Your task to perform on an android device: View the shopping cart on walmart.com. Add "panasonic triple a" to the cart on walmart.com Image 0: 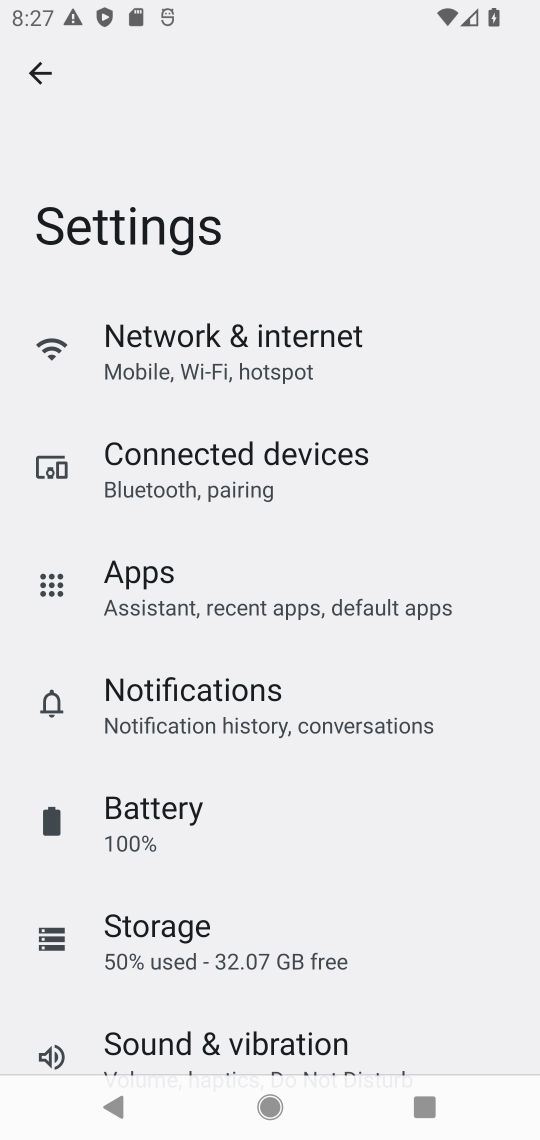
Step 0: press home button
Your task to perform on an android device: View the shopping cart on walmart.com. Add "panasonic triple a" to the cart on walmart.com Image 1: 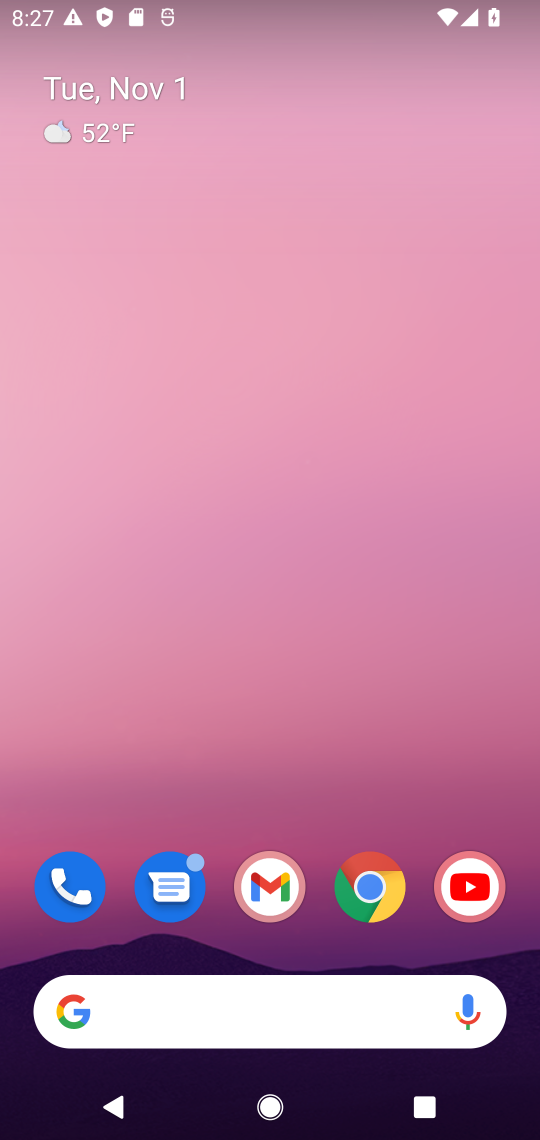
Step 1: drag from (224, 1015) to (245, 241)
Your task to perform on an android device: View the shopping cart on walmart.com. Add "panasonic triple a" to the cart on walmart.com Image 2: 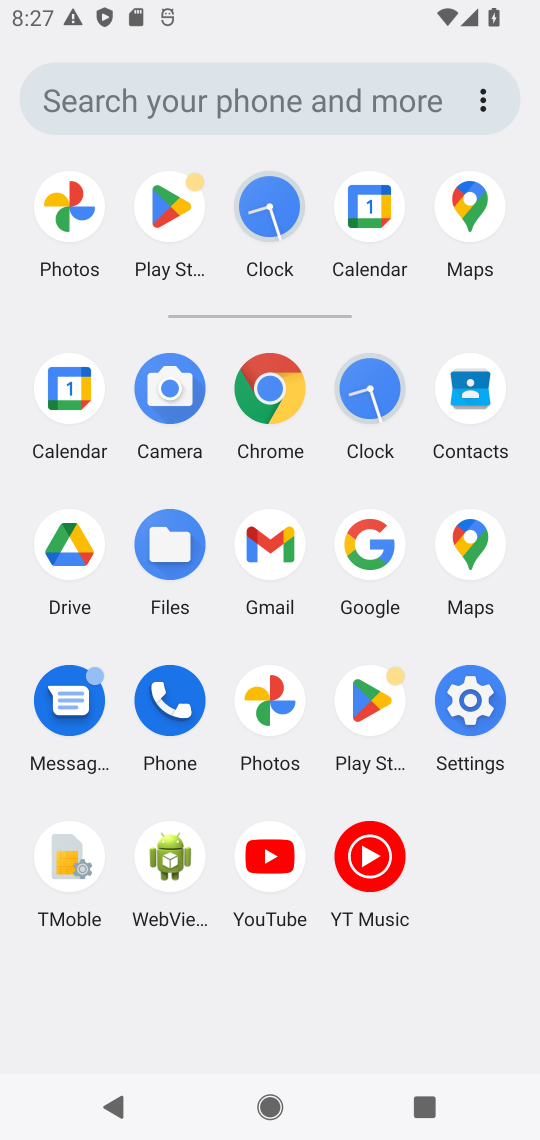
Step 2: click (375, 548)
Your task to perform on an android device: View the shopping cart on walmart.com. Add "panasonic triple a" to the cart on walmart.com Image 3: 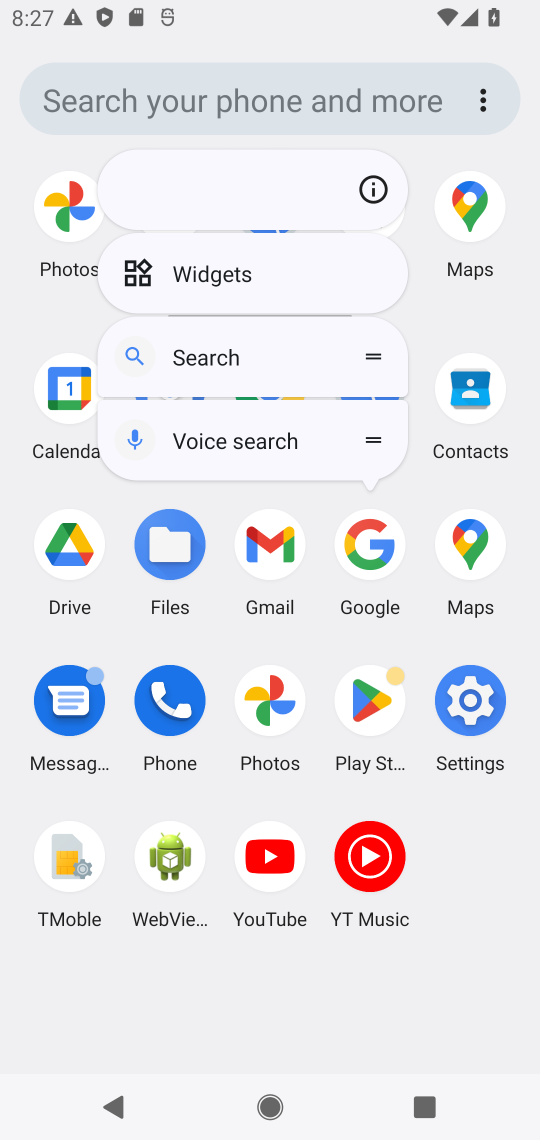
Step 3: click (360, 533)
Your task to perform on an android device: View the shopping cart on walmart.com. Add "panasonic triple a" to the cart on walmart.com Image 4: 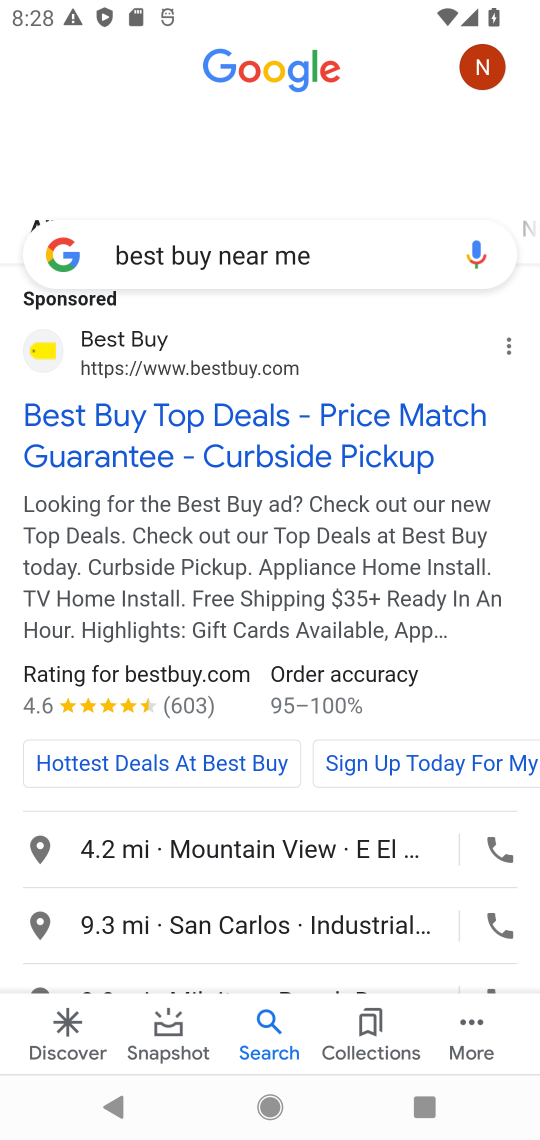
Step 4: click (316, 263)
Your task to perform on an android device: View the shopping cart on walmart.com. Add "panasonic triple a" to the cart on walmart.com Image 5: 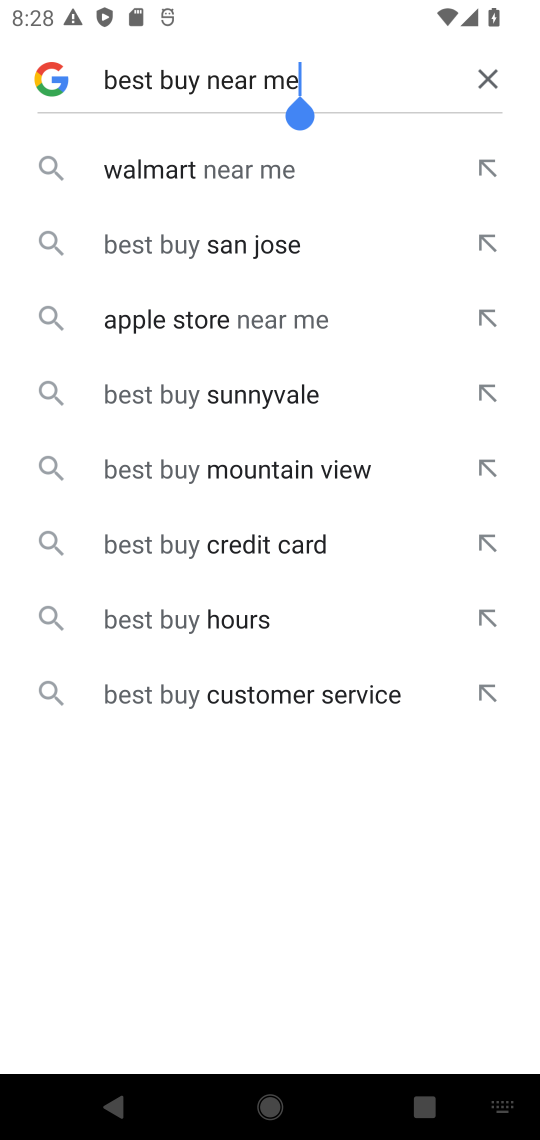
Step 5: click (495, 78)
Your task to perform on an android device: View the shopping cart on walmart.com. Add "panasonic triple a" to the cart on walmart.com Image 6: 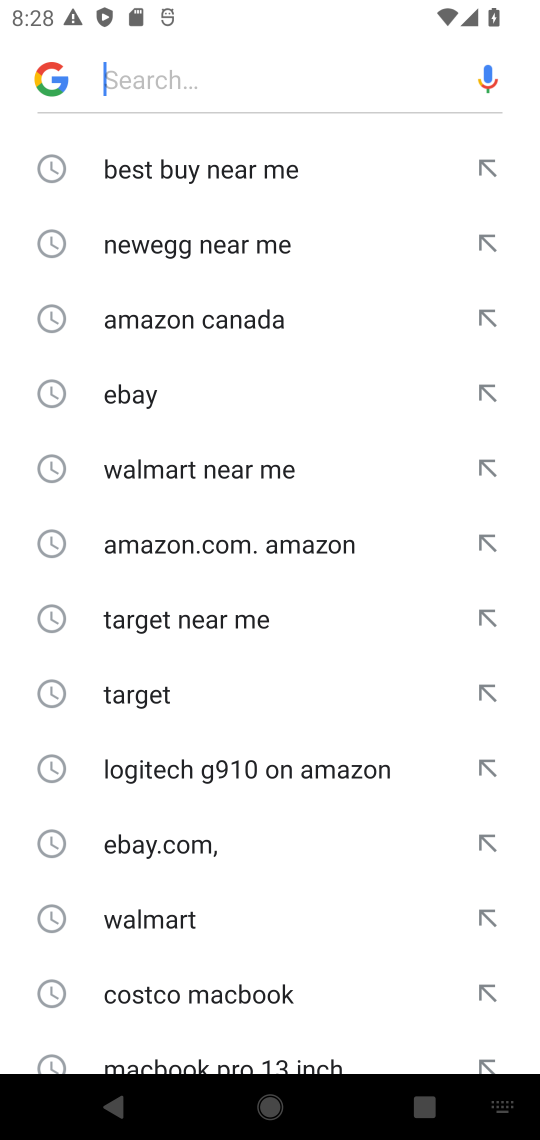
Step 6: click (122, 61)
Your task to perform on an android device: View the shopping cart on walmart.com. Add "panasonic triple a" to the cart on walmart.com Image 7: 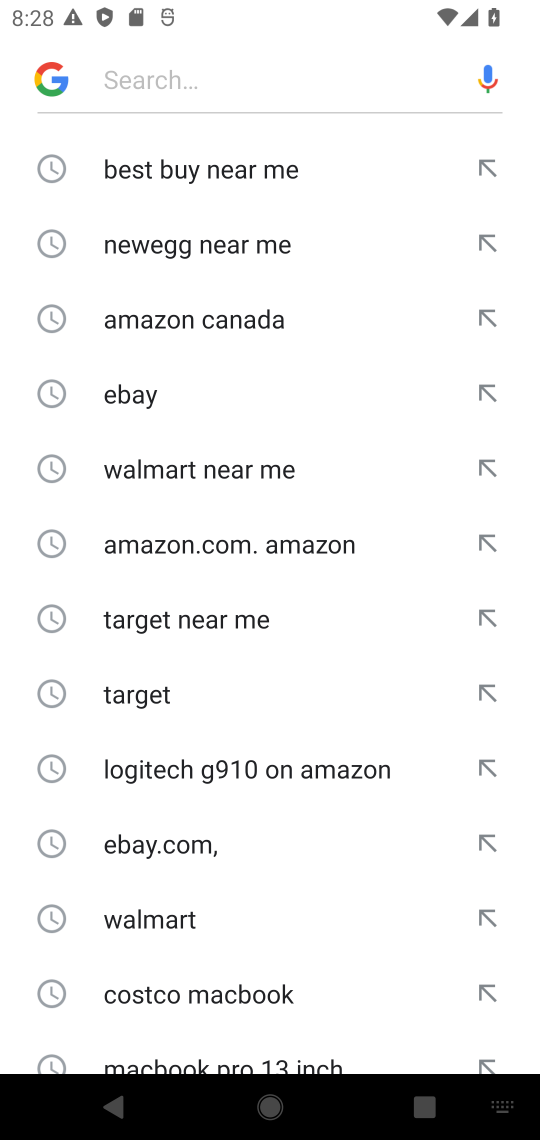
Step 7: type "walmart "
Your task to perform on an android device: View the shopping cart on walmart.com. Add "panasonic triple a" to the cart on walmart.com Image 8: 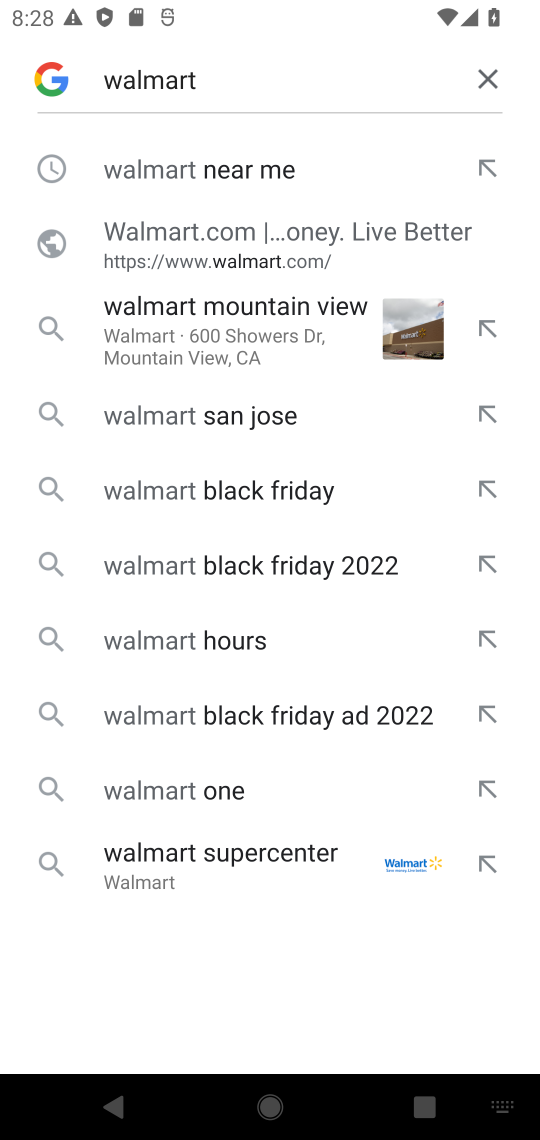
Step 8: click (203, 175)
Your task to perform on an android device: View the shopping cart on walmart.com. Add "panasonic triple a" to the cart on walmart.com Image 9: 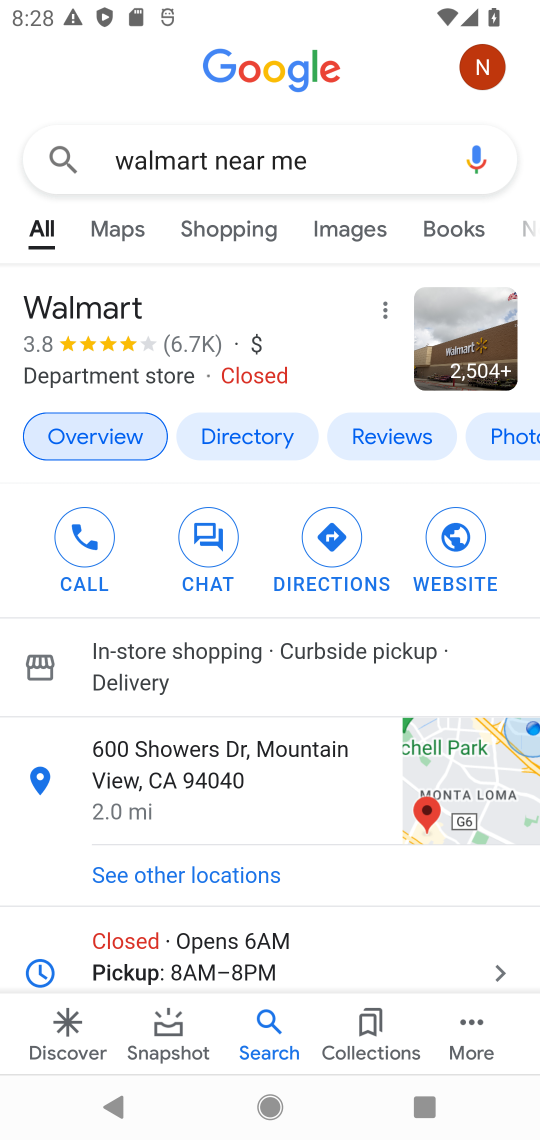
Step 9: drag from (224, 898) to (283, 269)
Your task to perform on an android device: View the shopping cart on walmart.com. Add "panasonic triple a" to the cart on walmart.com Image 10: 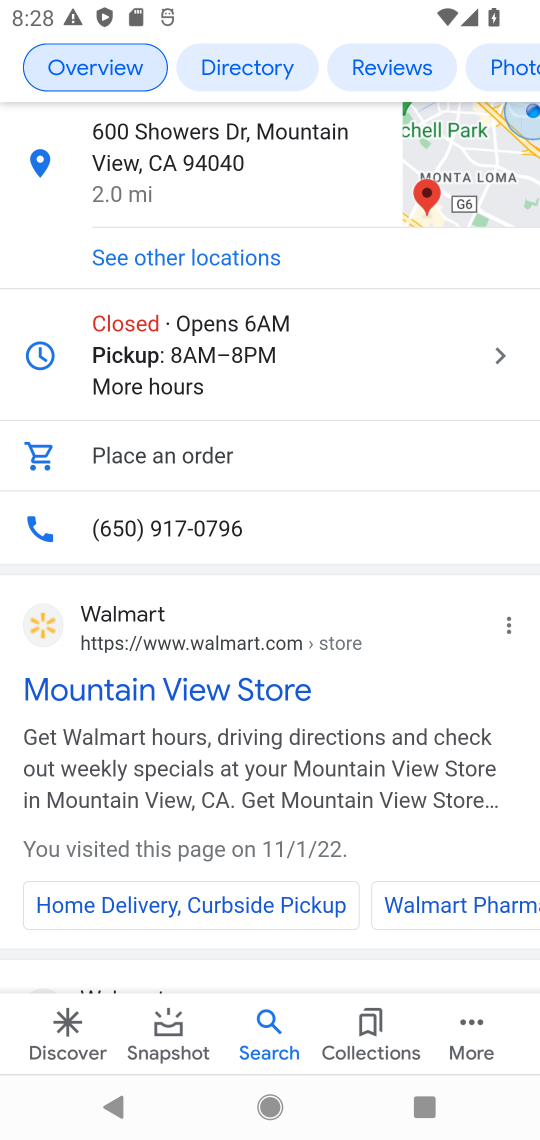
Step 10: click (40, 614)
Your task to perform on an android device: View the shopping cart on walmart.com. Add "panasonic triple a" to the cart on walmart.com Image 11: 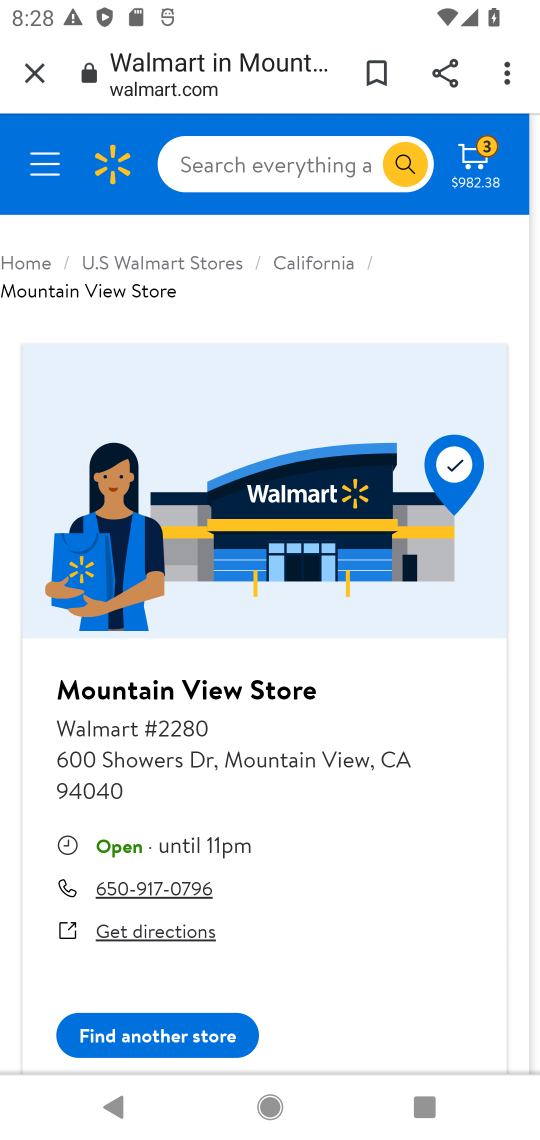
Step 11: click (322, 152)
Your task to perform on an android device: View the shopping cart on walmart.com. Add "panasonic triple a" to the cart on walmart.com Image 12: 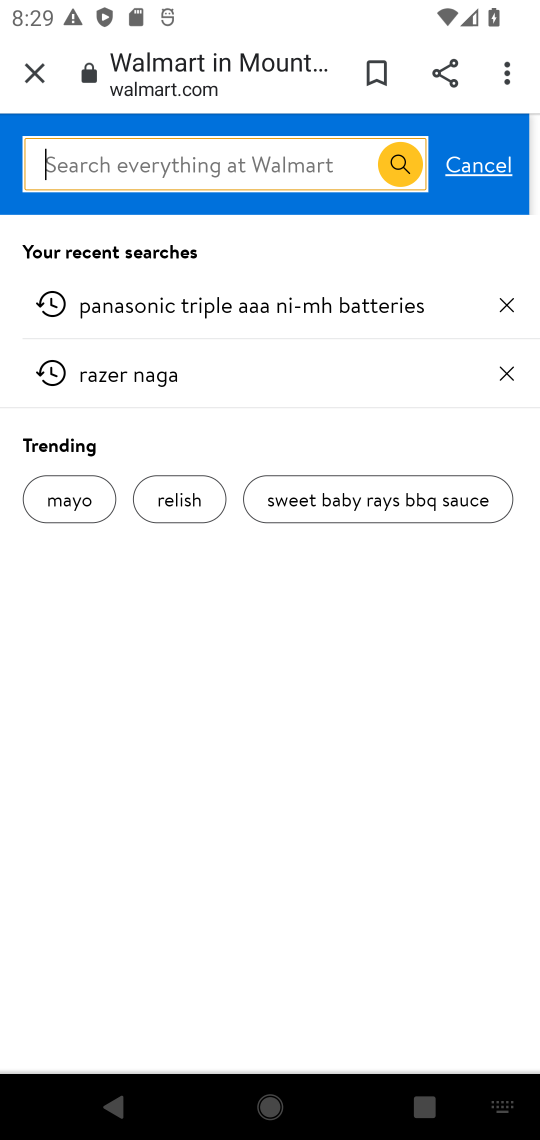
Step 12: click (259, 149)
Your task to perform on an android device: View the shopping cart on walmart.com. Add "panasonic triple a" to the cart on walmart.com Image 13: 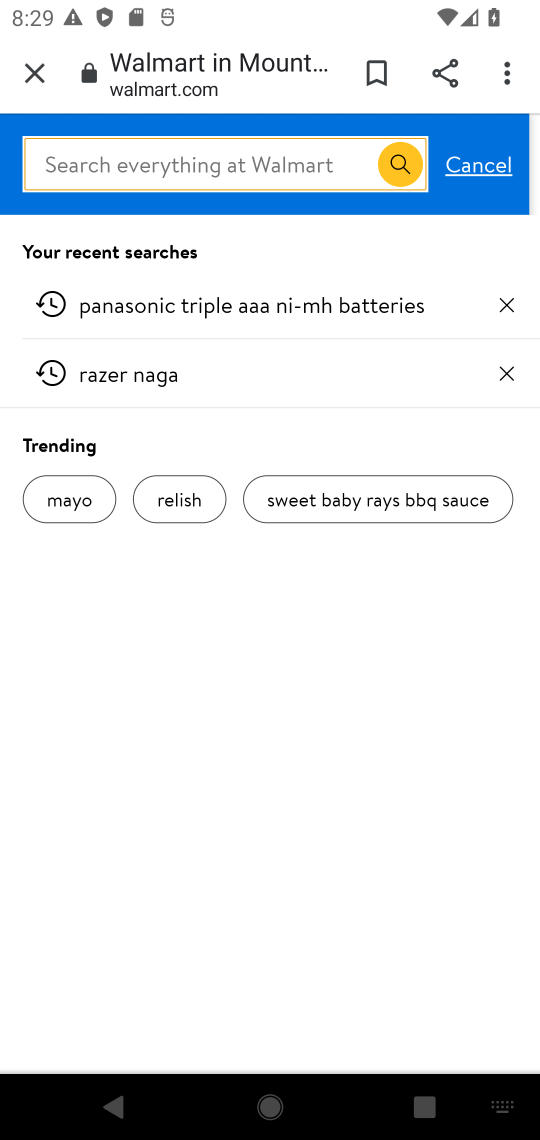
Step 13: type "panasonic triple  "
Your task to perform on an android device: View the shopping cart on walmart.com. Add "panasonic triple a" to the cart on walmart.com Image 14: 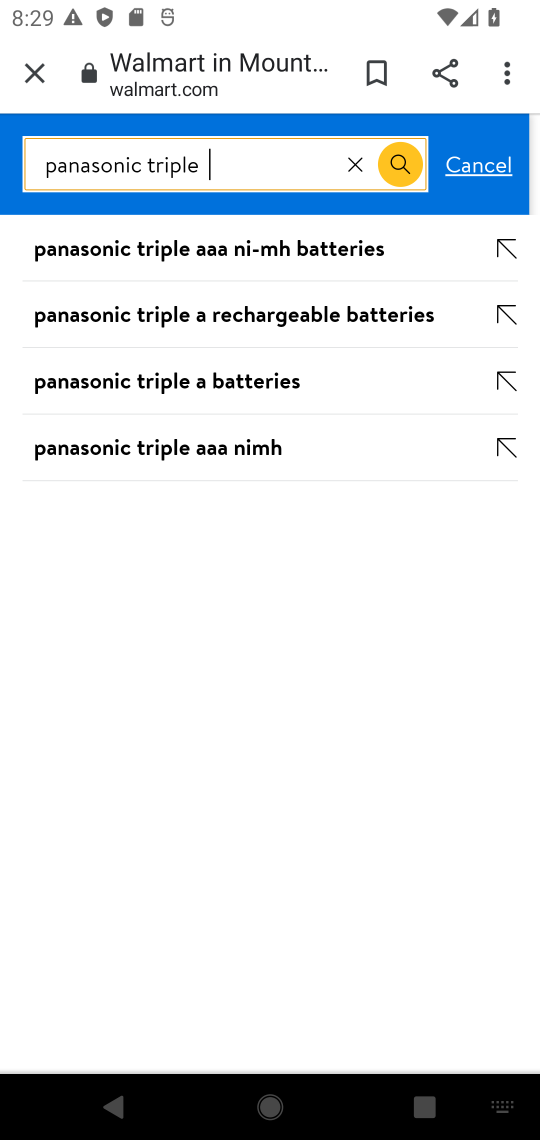
Step 14: click (141, 242)
Your task to perform on an android device: View the shopping cart on walmart.com. Add "panasonic triple a" to the cart on walmart.com Image 15: 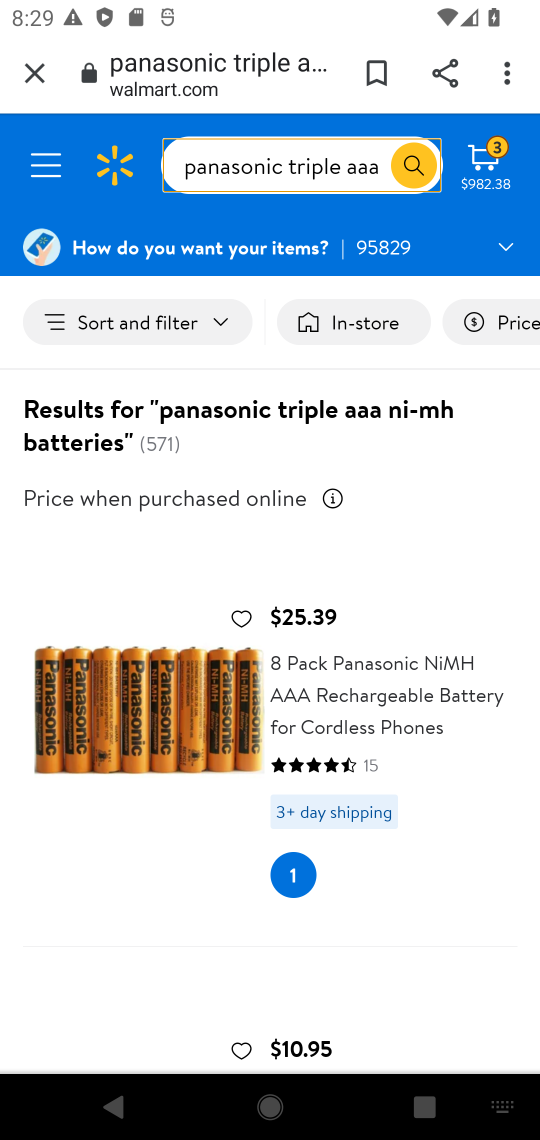
Step 15: drag from (306, 869) to (338, 509)
Your task to perform on an android device: View the shopping cart on walmart.com. Add "panasonic triple a" to the cart on walmart.com Image 16: 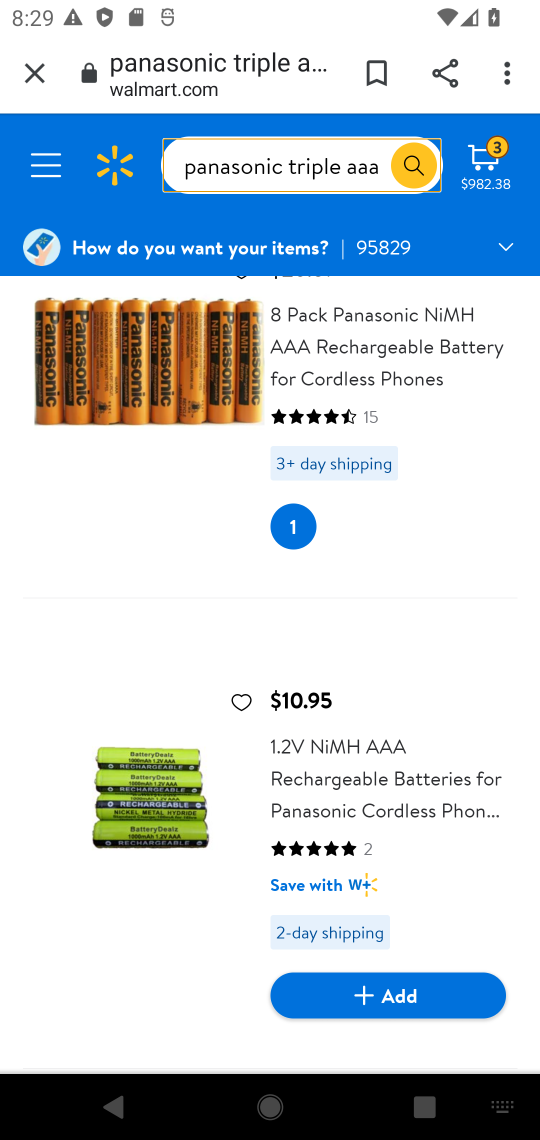
Step 16: click (355, 993)
Your task to perform on an android device: View the shopping cart on walmart.com. Add "panasonic triple a" to the cart on walmart.com Image 17: 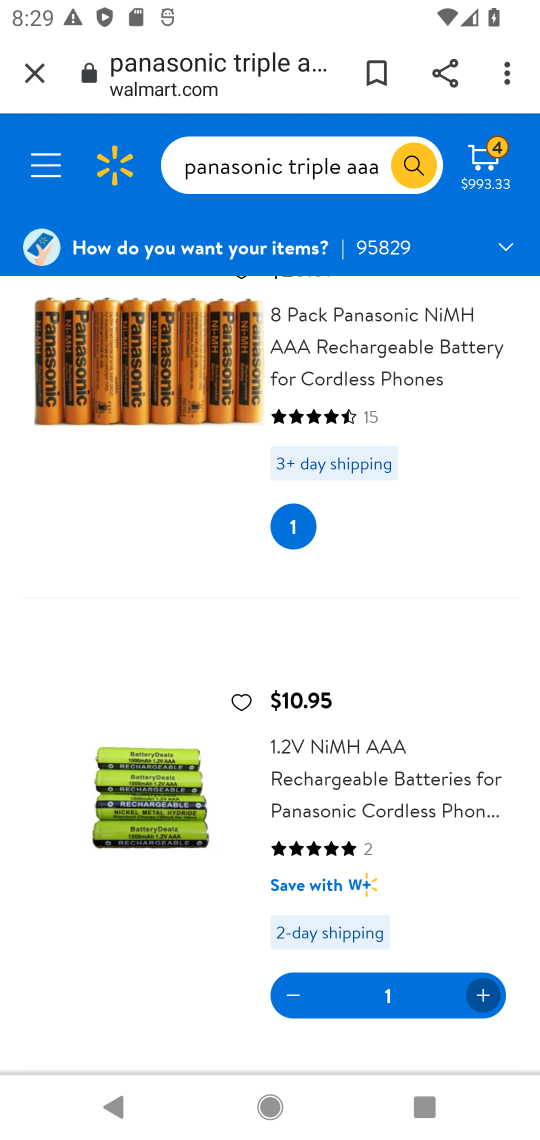
Step 17: task complete